Your task to perform on an android device: Open the stopwatch Image 0: 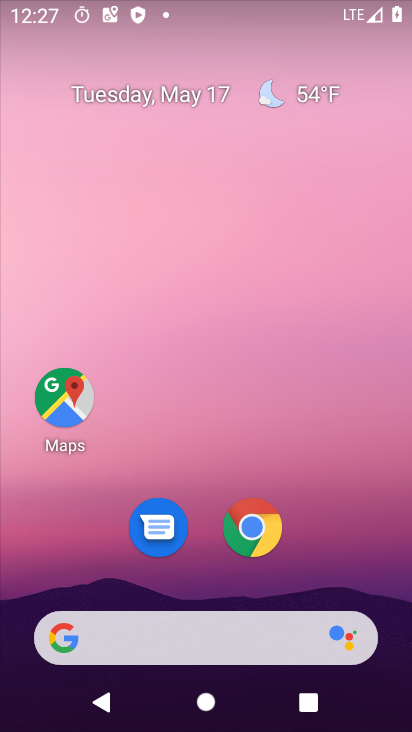
Step 0: drag from (214, 659) to (176, 342)
Your task to perform on an android device: Open the stopwatch Image 1: 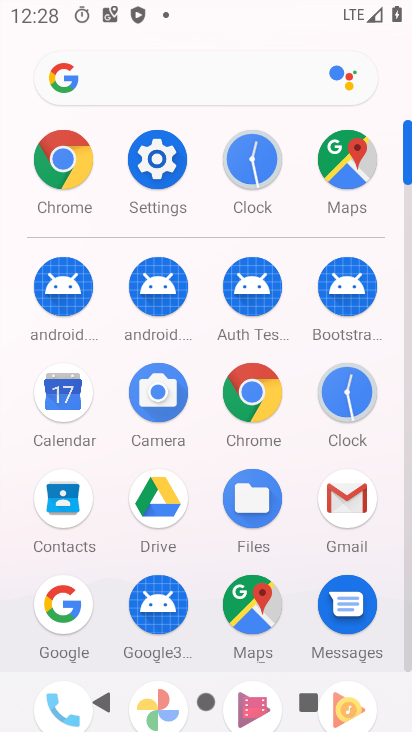
Step 1: click (333, 399)
Your task to perform on an android device: Open the stopwatch Image 2: 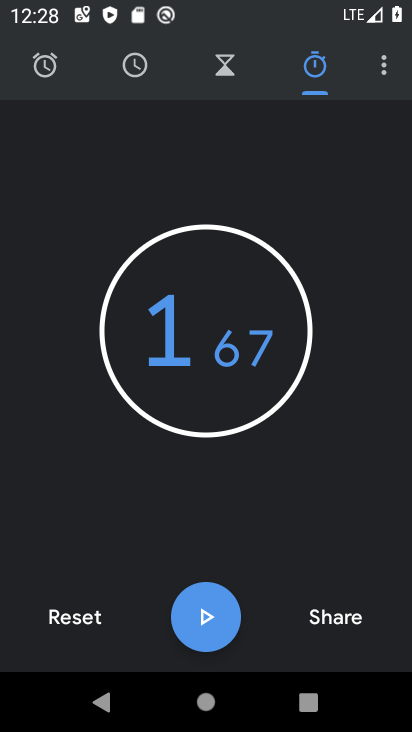
Step 2: click (244, 67)
Your task to perform on an android device: Open the stopwatch Image 3: 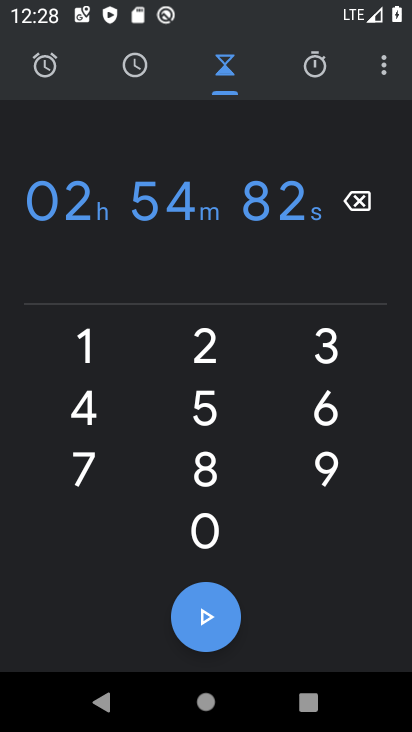
Step 3: click (320, 63)
Your task to perform on an android device: Open the stopwatch Image 4: 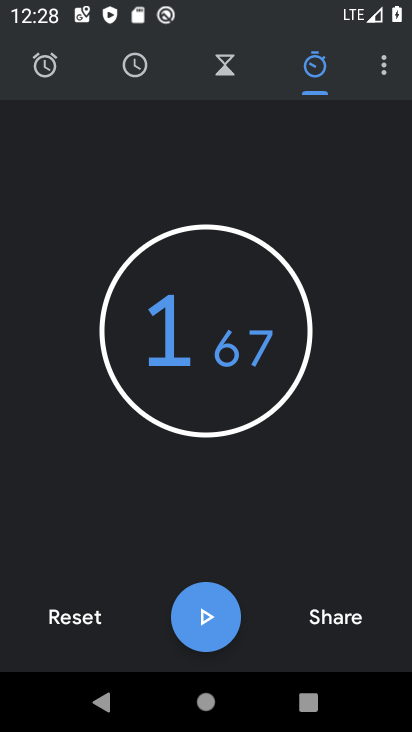
Step 4: task complete